Your task to perform on an android device: See recent photos Image 0: 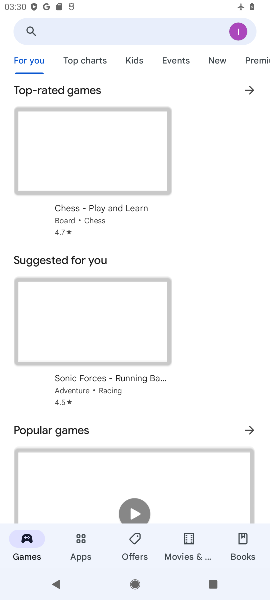
Step 0: press home button
Your task to perform on an android device: See recent photos Image 1: 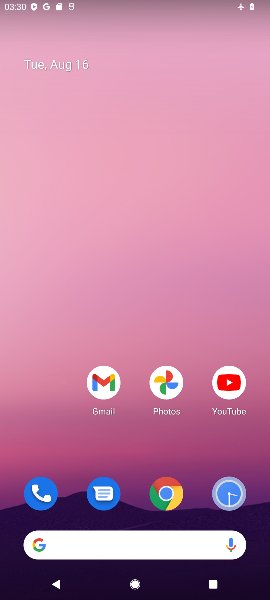
Step 1: drag from (70, 439) to (95, 82)
Your task to perform on an android device: See recent photos Image 2: 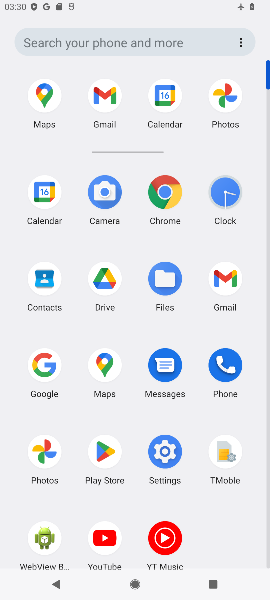
Step 2: click (43, 457)
Your task to perform on an android device: See recent photos Image 3: 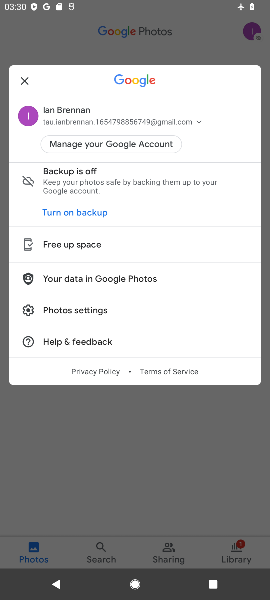
Step 3: task complete